Your task to perform on an android device: toggle data saver in the chrome app Image 0: 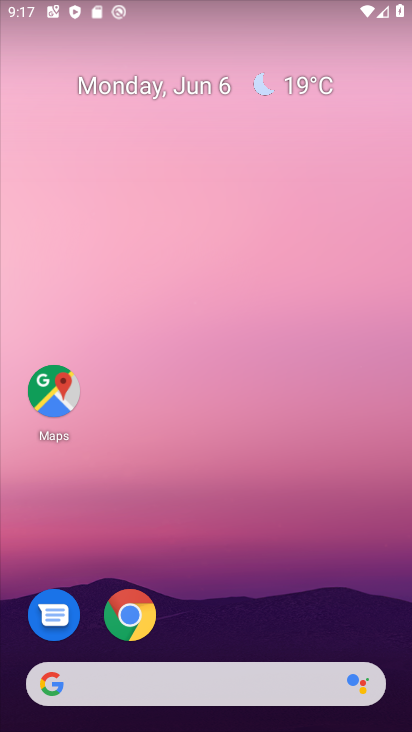
Step 0: click (128, 608)
Your task to perform on an android device: toggle data saver in the chrome app Image 1: 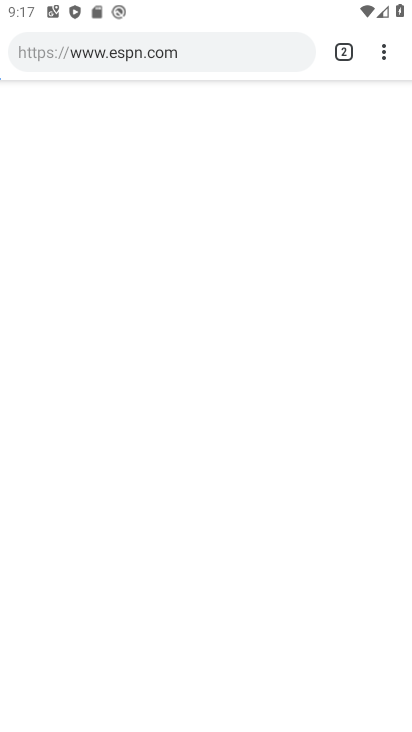
Step 1: click (380, 55)
Your task to perform on an android device: toggle data saver in the chrome app Image 2: 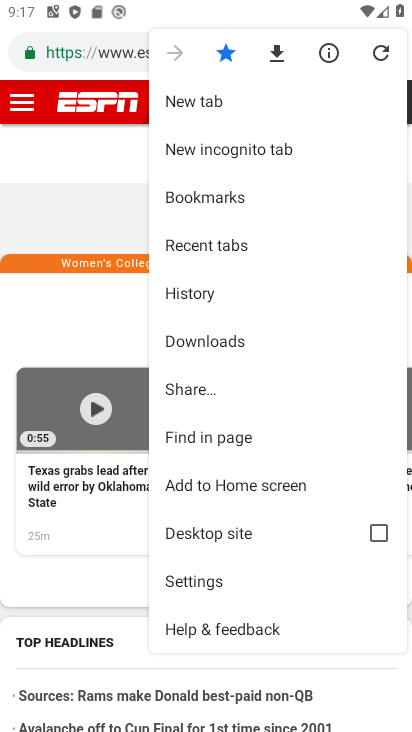
Step 2: click (174, 585)
Your task to perform on an android device: toggle data saver in the chrome app Image 3: 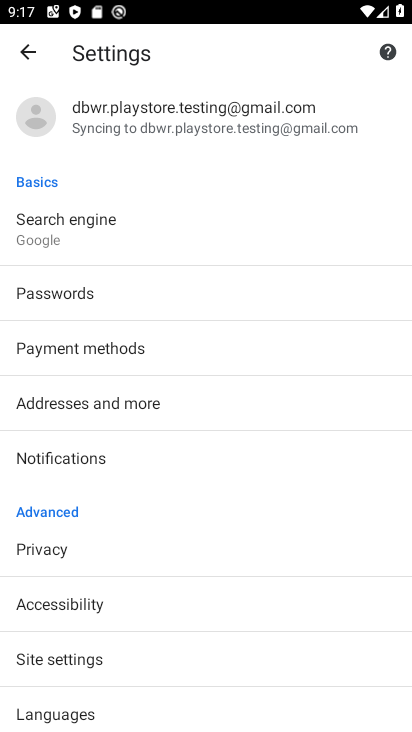
Step 3: drag from (190, 620) to (33, 0)
Your task to perform on an android device: toggle data saver in the chrome app Image 4: 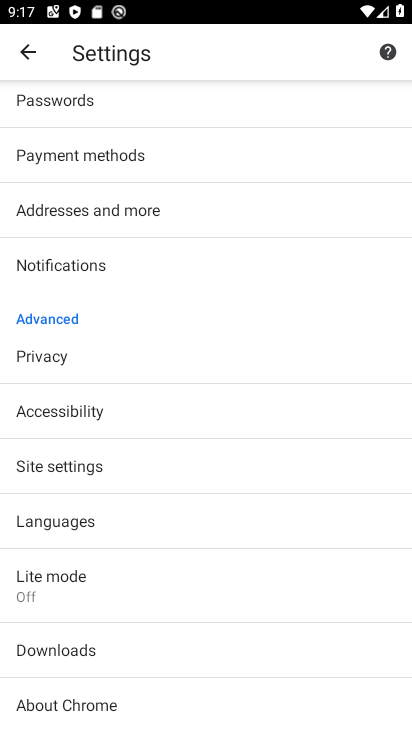
Step 4: click (45, 571)
Your task to perform on an android device: toggle data saver in the chrome app Image 5: 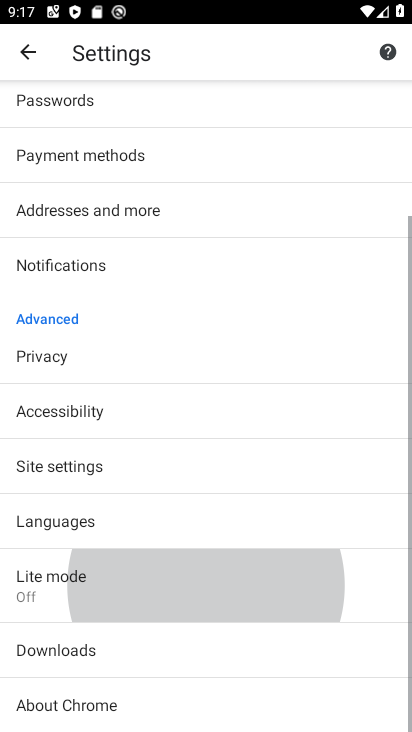
Step 5: click (45, 571)
Your task to perform on an android device: toggle data saver in the chrome app Image 6: 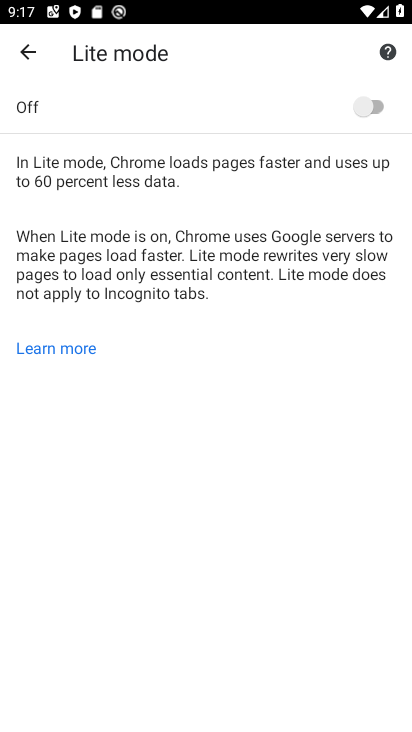
Step 6: click (368, 98)
Your task to perform on an android device: toggle data saver in the chrome app Image 7: 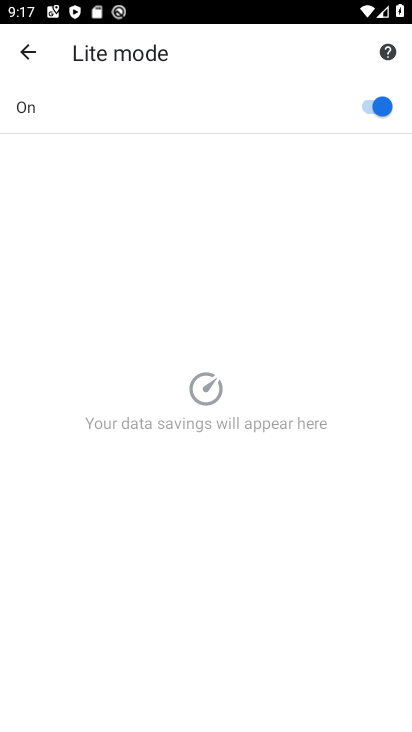
Step 7: task complete